Your task to perform on an android device: see creations saved in the google photos Image 0: 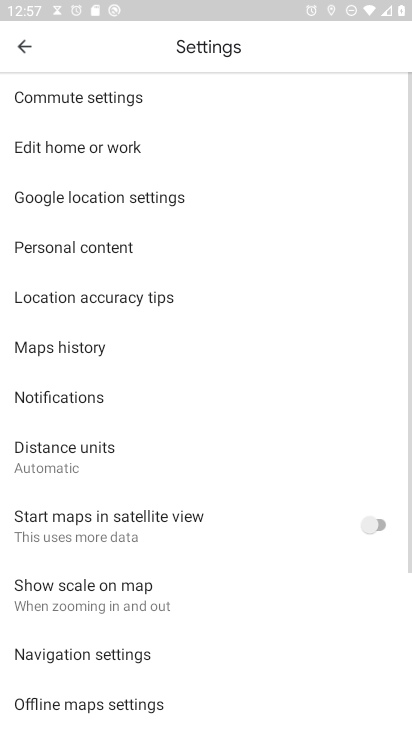
Step 0: press home button
Your task to perform on an android device: see creations saved in the google photos Image 1: 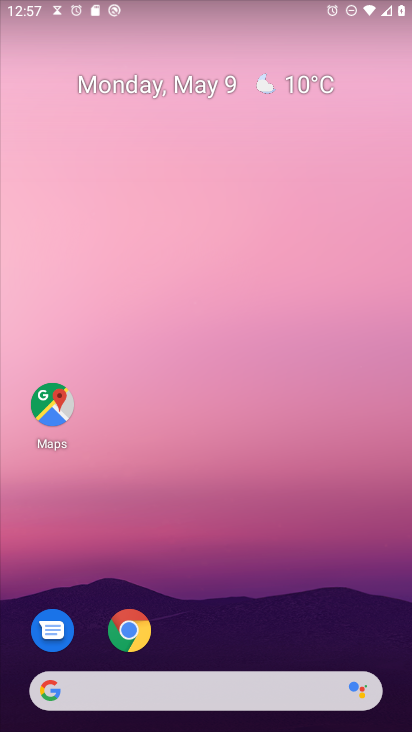
Step 1: drag from (141, 705) to (292, 148)
Your task to perform on an android device: see creations saved in the google photos Image 2: 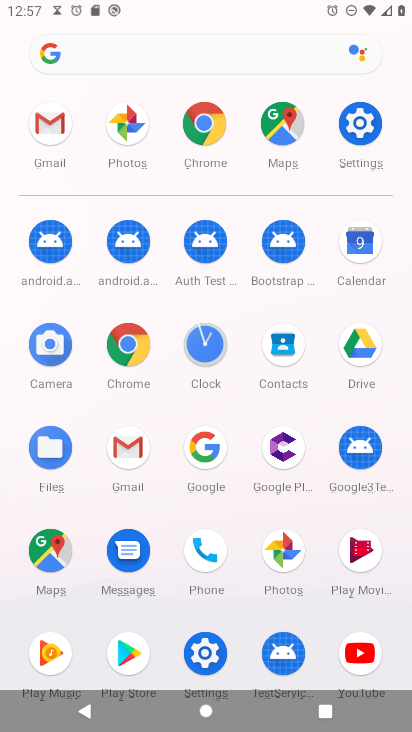
Step 2: click (292, 556)
Your task to perform on an android device: see creations saved in the google photos Image 3: 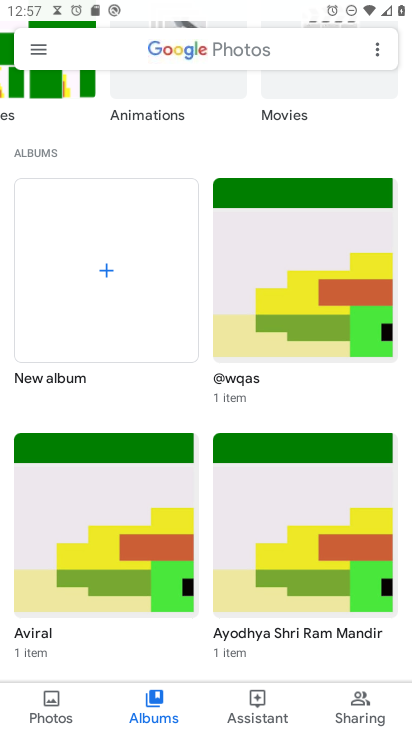
Step 3: click (131, 37)
Your task to perform on an android device: see creations saved in the google photos Image 4: 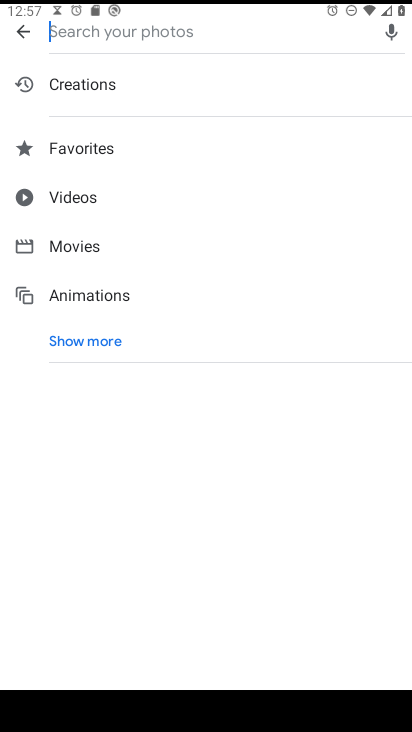
Step 4: click (74, 340)
Your task to perform on an android device: see creations saved in the google photos Image 5: 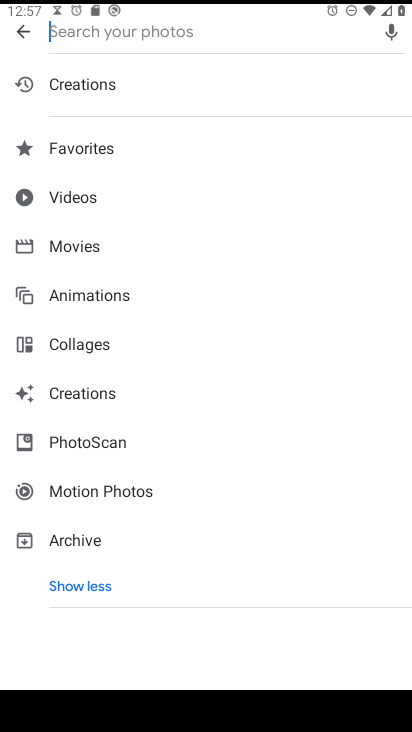
Step 5: click (69, 398)
Your task to perform on an android device: see creations saved in the google photos Image 6: 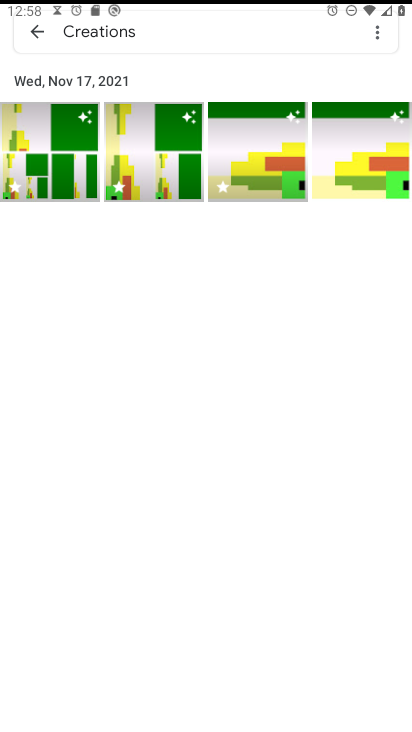
Step 6: task complete